Your task to perform on an android device: Open Google Chrome and click the shortcut for Amazon.com Image 0: 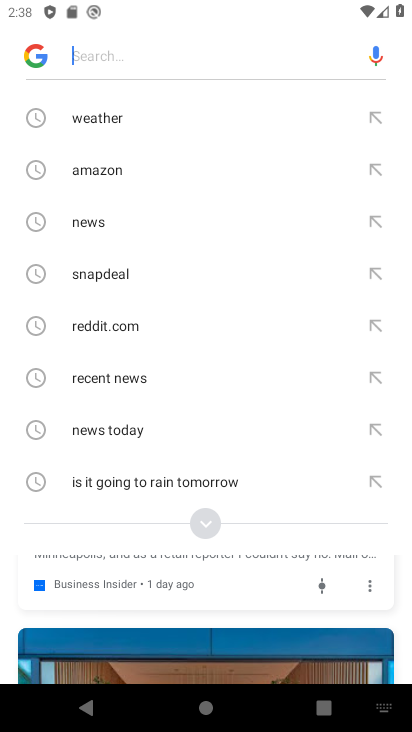
Step 0: click (87, 172)
Your task to perform on an android device: Open Google Chrome and click the shortcut for Amazon.com Image 1: 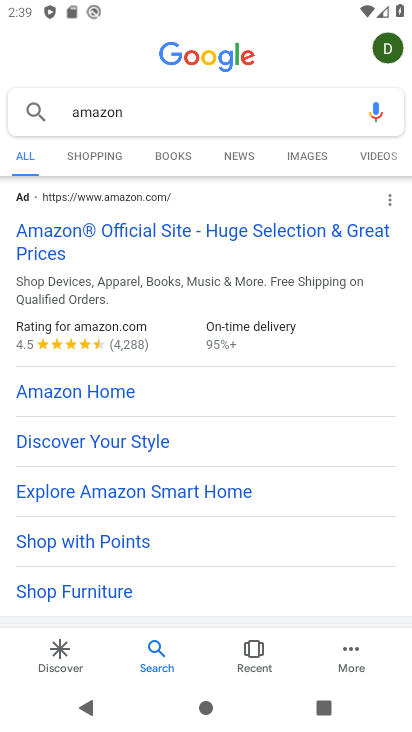
Step 1: drag from (225, 547) to (182, 55)
Your task to perform on an android device: Open Google Chrome and click the shortcut for Amazon.com Image 2: 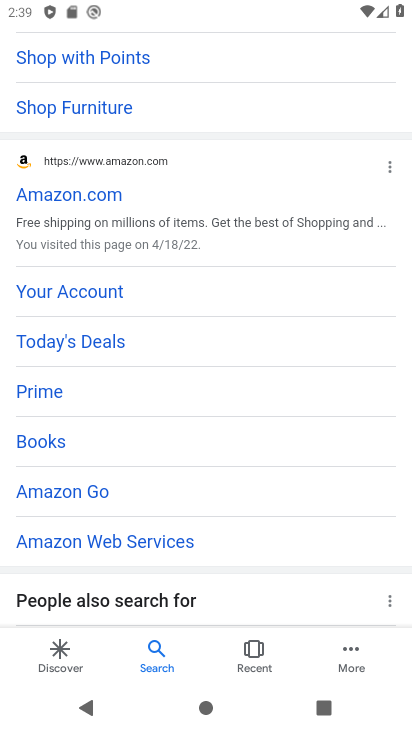
Step 2: click (33, 196)
Your task to perform on an android device: Open Google Chrome and click the shortcut for Amazon.com Image 3: 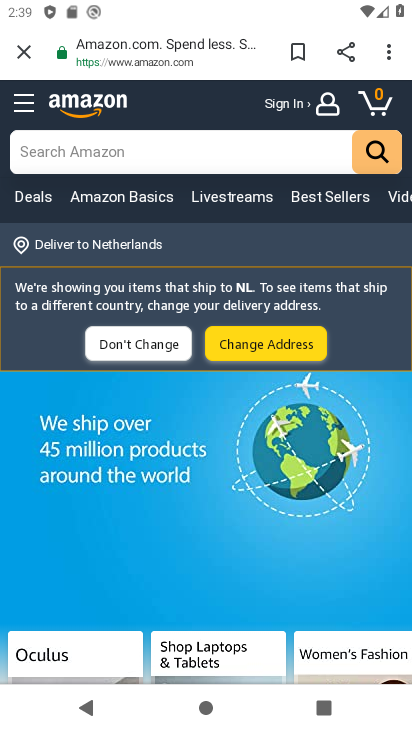
Step 3: click (388, 55)
Your task to perform on an android device: Open Google Chrome and click the shortcut for Amazon.com Image 4: 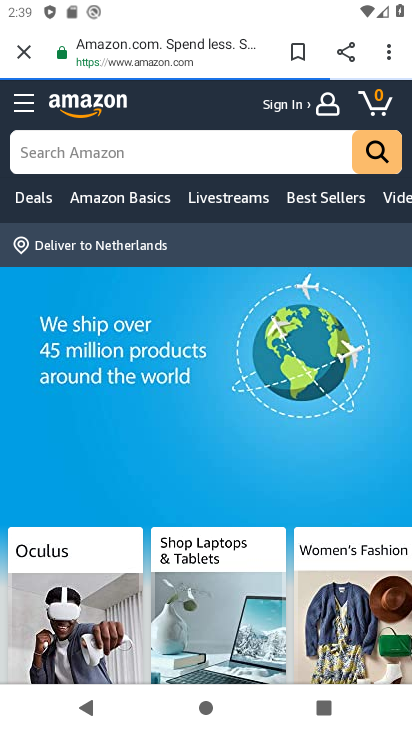
Step 4: drag from (384, 51) to (276, 293)
Your task to perform on an android device: Open Google Chrome and click the shortcut for Amazon.com Image 5: 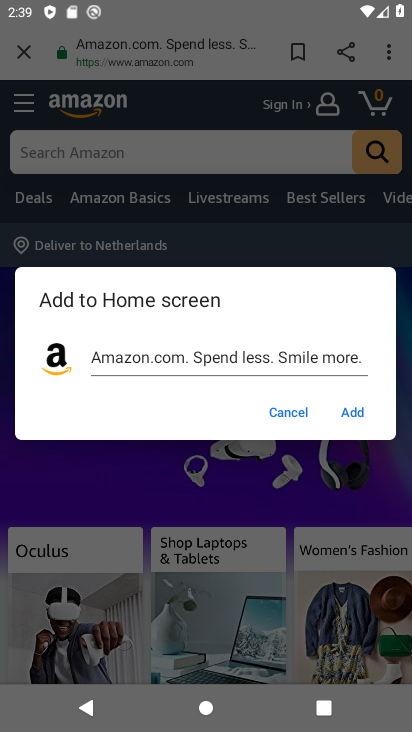
Step 5: click (355, 414)
Your task to perform on an android device: Open Google Chrome and click the shortcut for Amazon.com Image 6: 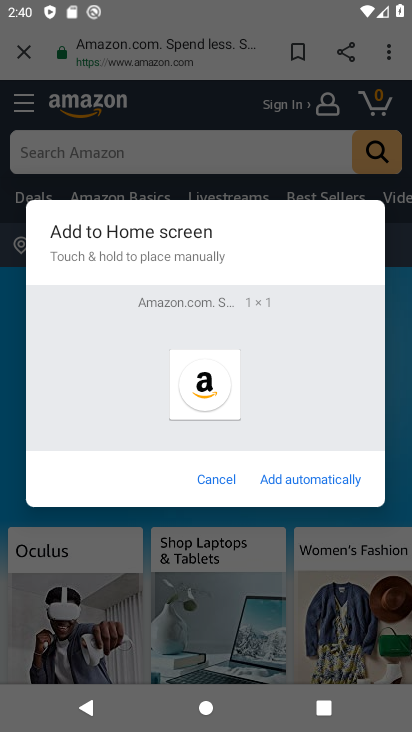
Step 6: click (310, 486)
Your task to perform on an android device: Open Google Chrome and click the shortcut for Amazon.com Image 7: 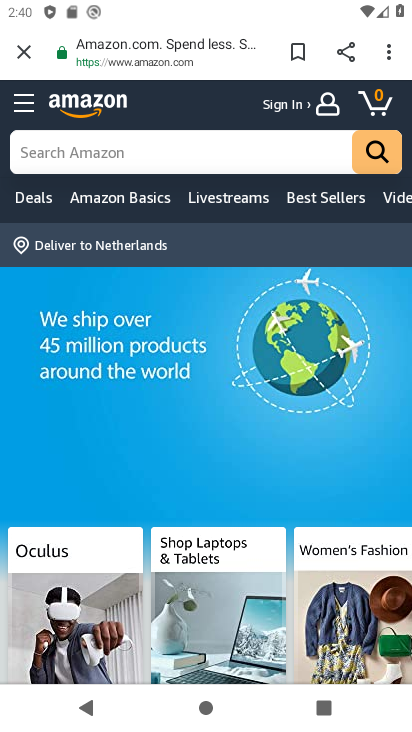
Step 7: click (208, 710)
Your task to perform on an android device: Open Google Chrome and click the shortcut for Amazon.com Image 8: 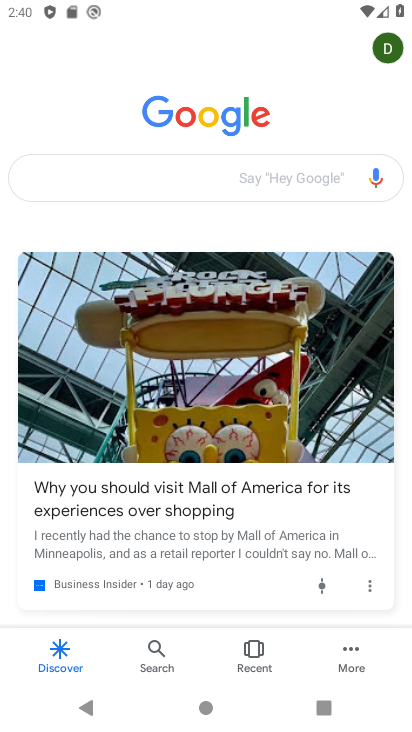
Step 8: click (182, 714)
Your task to perform on an android device: Open Google Chrome and click the shortcut for Amazon.com Image 9: 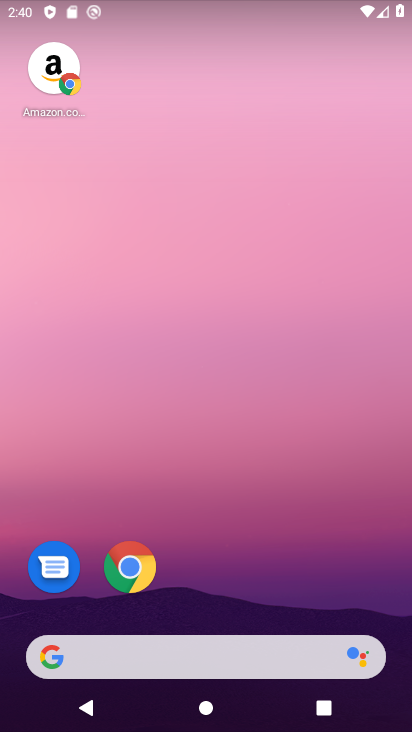
Step 9: task complete